Your task to perform on an android device: open a new tab in the chrome app Image 0: 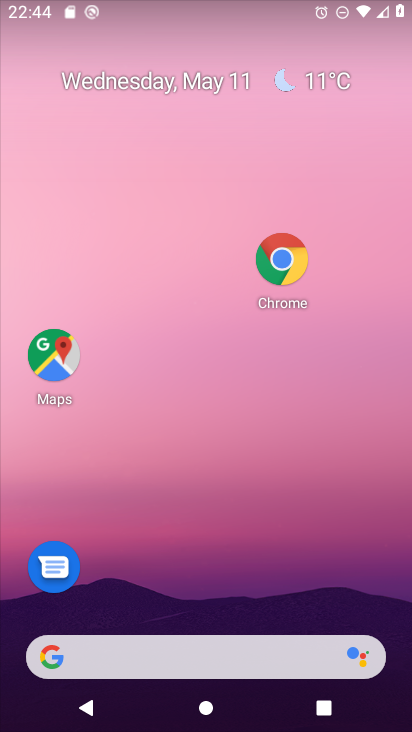
Step 0: drag from (174, 668) to (310, 222)
Your task to perform on an android device: open a new tab in the chrome app Image 1: 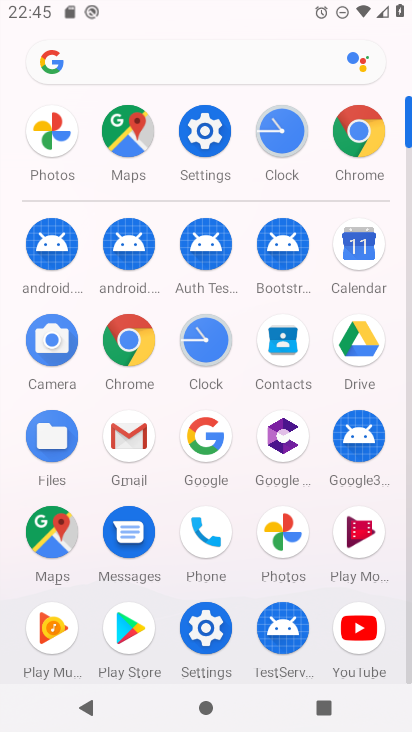
Step 1: click (364, 138)
Your task to perform on an android device: open a new tab in the chrome app Image 2: 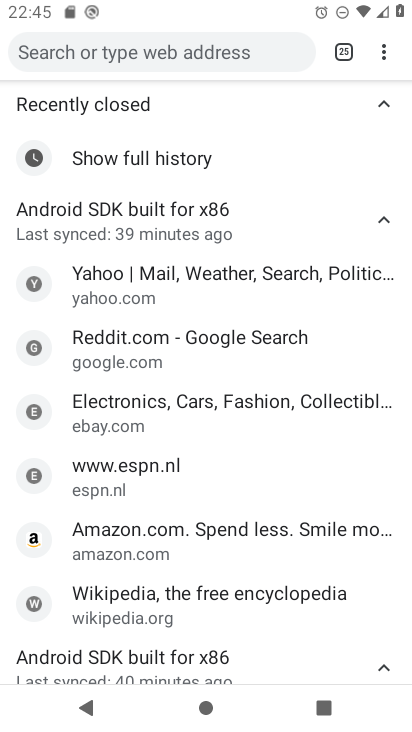
Step 2: task complete